Your task to perform on an android device: open chrome privacy settings Image 0: 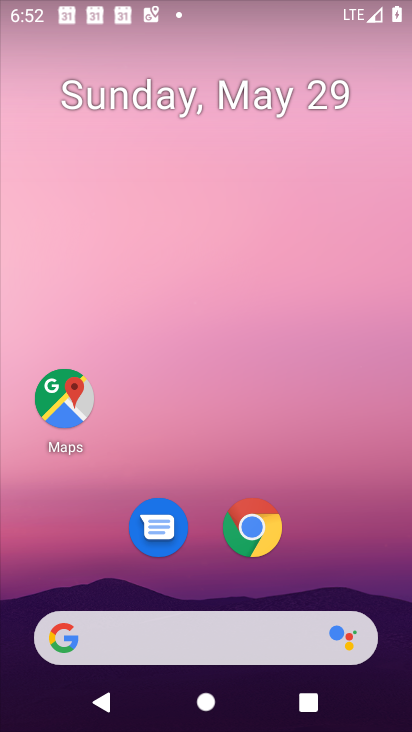
Step 0: drag from (339, 539) to (305, 0)
Your task to perform on an android device: open chrome privacy settings Image 1: 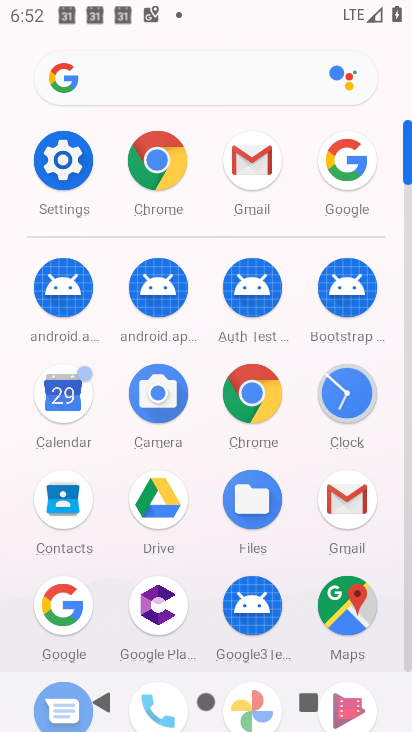
Step 1: click (145, 196)
Your task to perform on an android device: open chrome privacy settings Image 2: 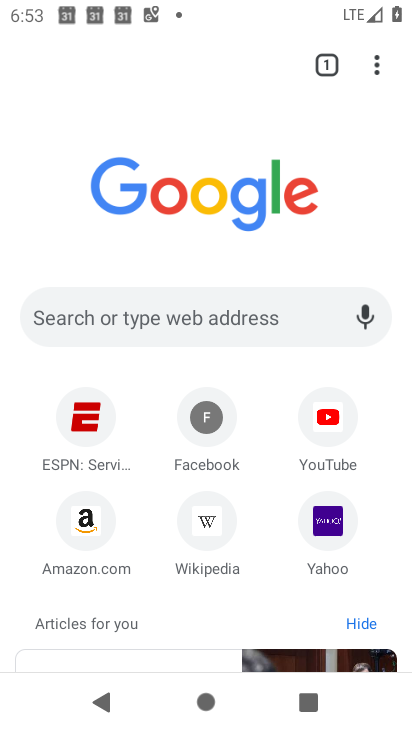
Step 2: click (381, 66)
Your task to perform on an android device: open chrome privacy settings Image 3: 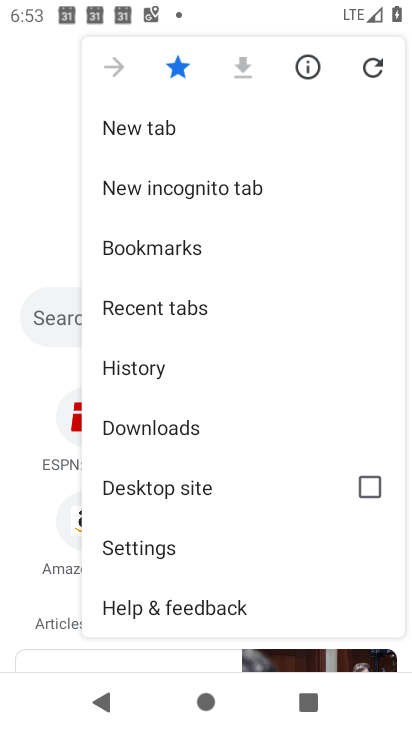
Step 3: click (195, 552)
Your task to perform on an android device: open chrome privacy settings Image 4: 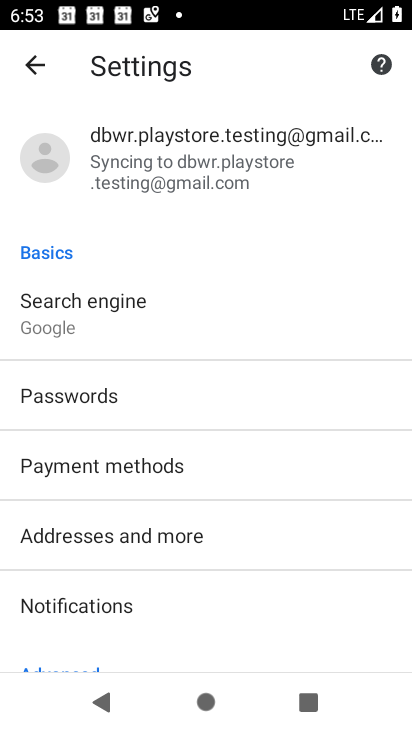
Step 4: drag from (120, 611) to (182, 214)
Your task to perform on an android device: open chrome privacy settings Image 5: 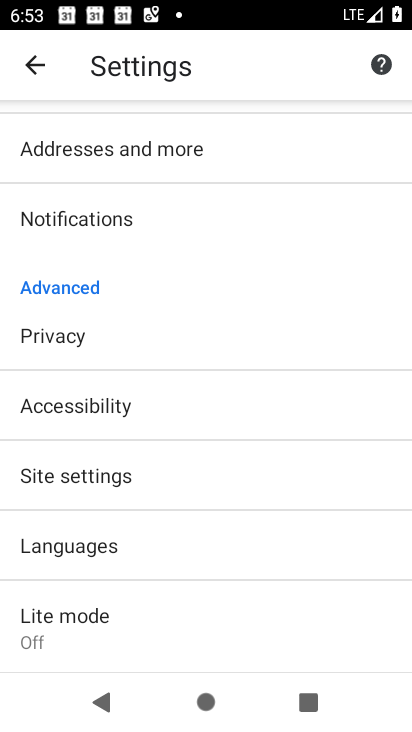
Step 5: click (116, 347)
Your task to perform on an android device: open chrome privacy settings Image 6: 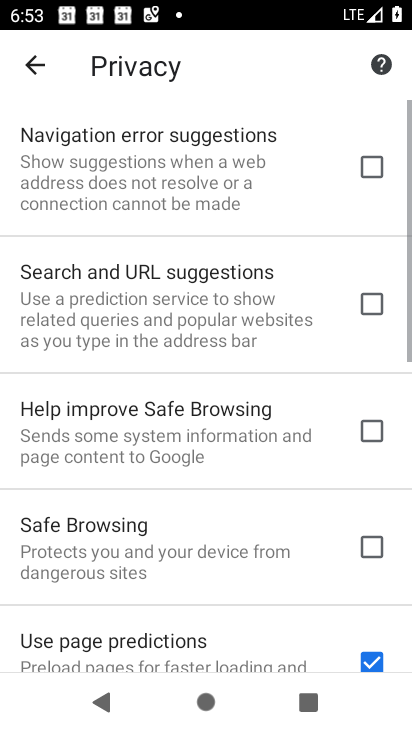
Step 6: task complete